Your task to perform on an android device: change the clock display to digital Image 0: 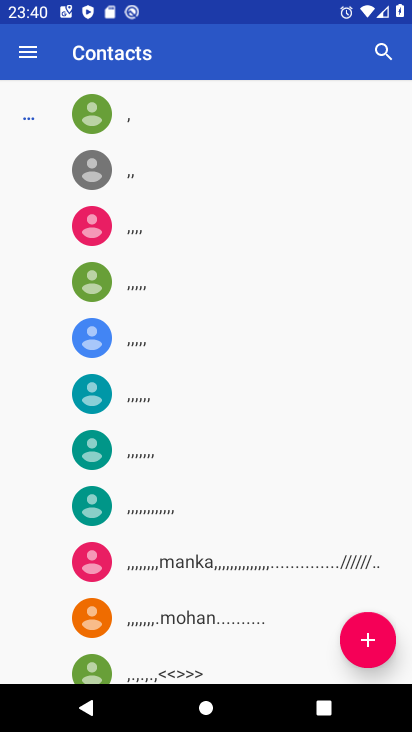
Step 0: press home button
Your task to perform on an android device: change the clock display to digital Image 1: 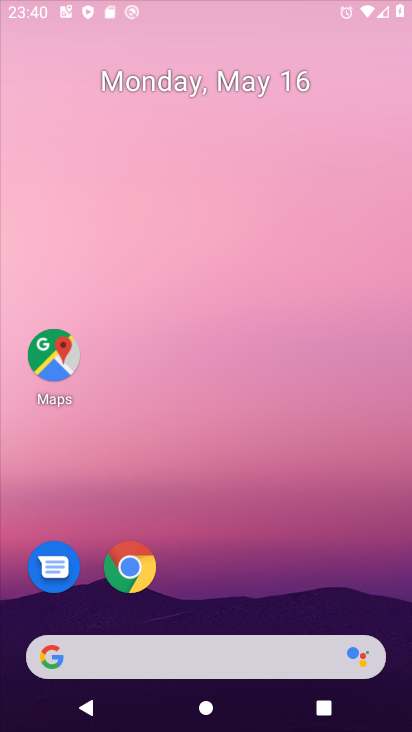
Step 1: drag from (270, 544) to (104, 0)
Your task to perform on an android device: change the clock display to digital Image 2: 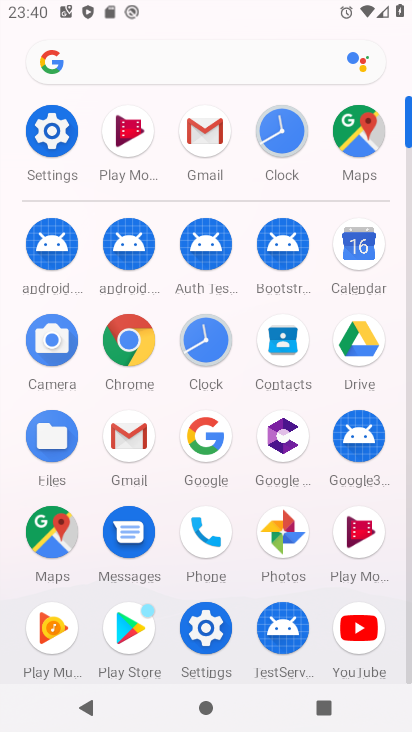
Step 2: click (289, 141)
Your task to perform on an android device: change the clock display to digital Image 3: 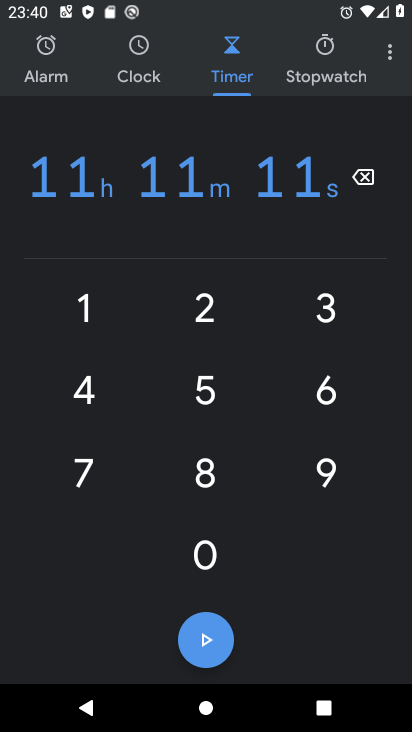
Step 3: click (389, 49)
Your task to perform on an android device: change the clock display to digital Image 4: 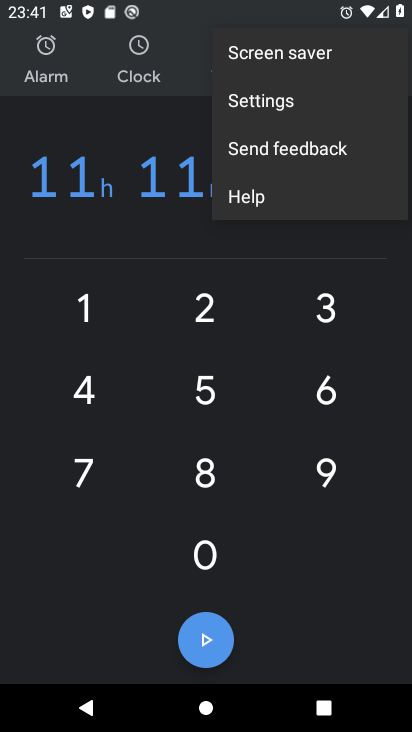
Step 4: click (273, 98)
Your task to perform on an android device: change the clock display to digital Image 5: 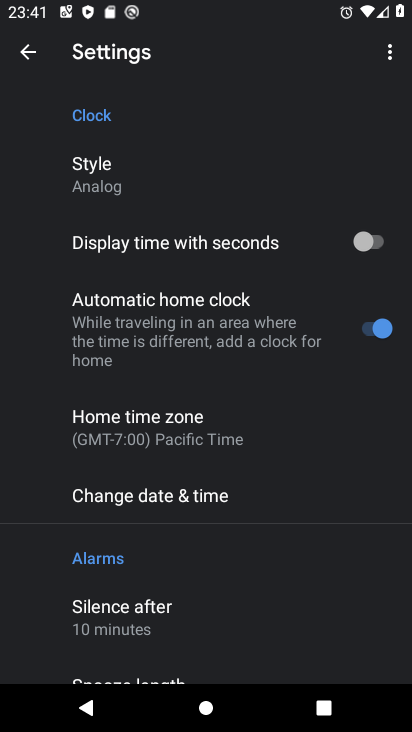
Step 5: click (98, 176)
Your task to perform on an android device: change the clock display to digital Image 6: 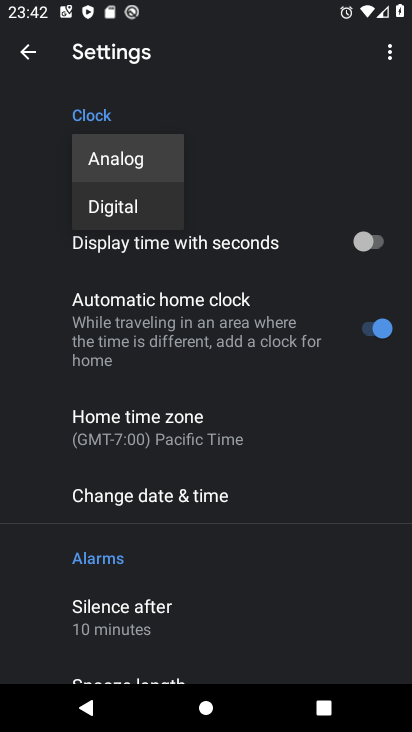
Step 6: click (118, 208)
Your task to perform on an android device: change the clock display to digital Image 7: 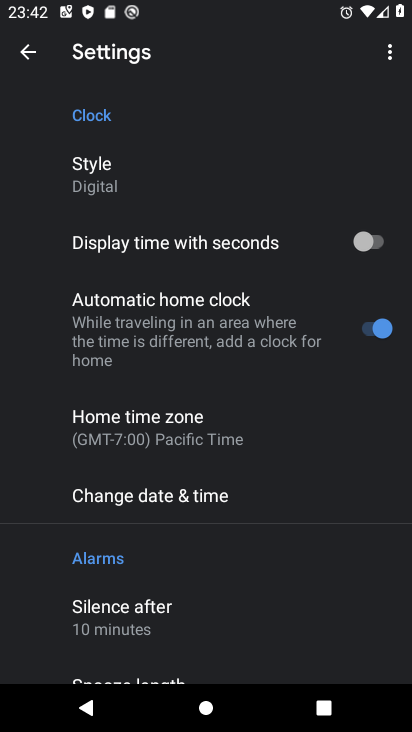
Step 7: task complete